Your task to perform on an android device: turn off priority inbox in the gmail app Image 0: 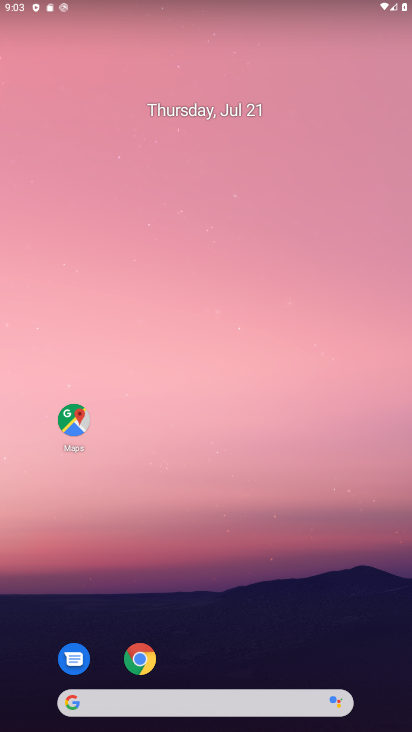
Step 0: drag from (206, 668) to (113, 362)
Your task to perform on an android device: turn off priority inbox in the gmail app Image 1: 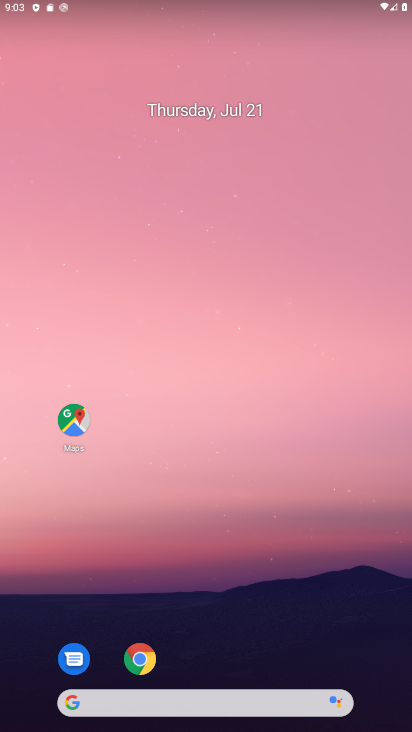
Step 1: drag from (241, 663) to (362, 515)
Your task to perform on an android device: turn off priority inbox in the gmail app Image 2: 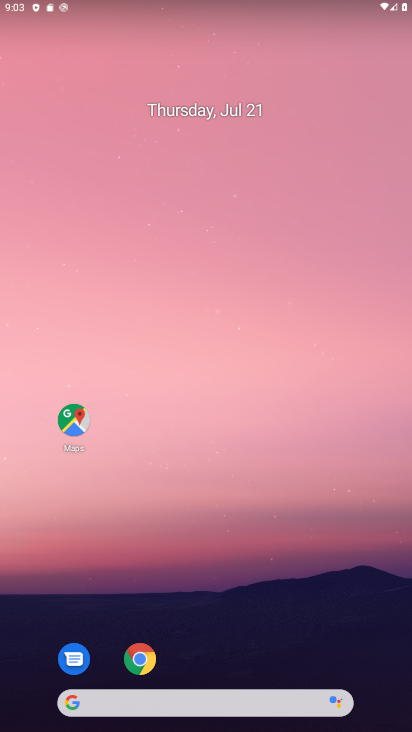
Step 2: drag from (212, 685) to (129, 34)
Your task to perform on an android device: turn off priority inbox in the gmail app Image 3: 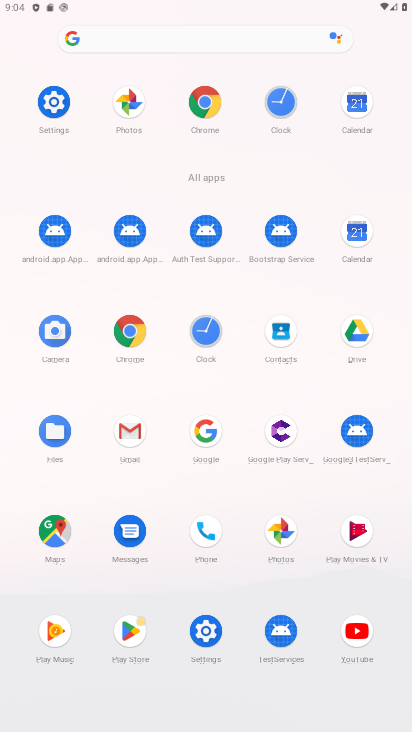
Step 3: click (132, 425)
Your task to perform on an android device: turn off priority inbox in the gmail app Image 4: 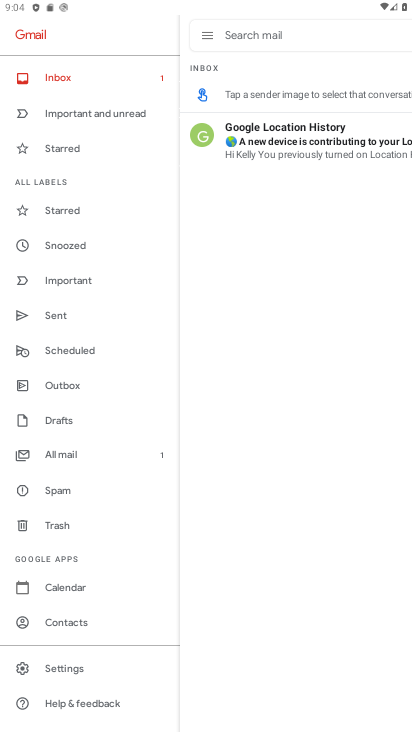
Step 4: click (95, 661)
Your task to perform on an android device: turn off priority inbox in the gmail app Image 5: 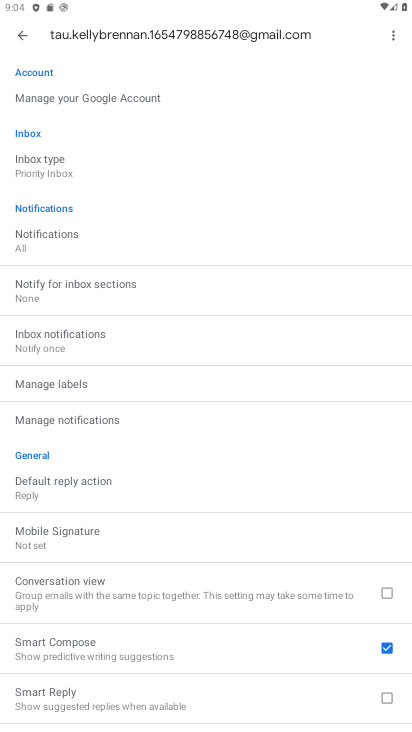
Step 5: click (31, 161)
Your task to perform on an android device: turn off priority inbox in the gmail app Image 6: 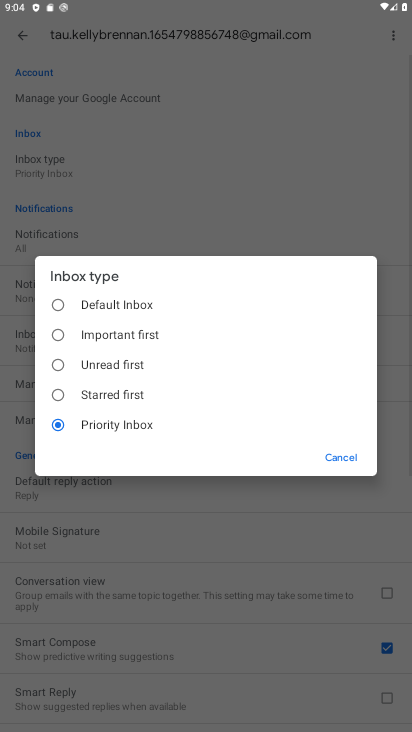
Step 6: click (130, 313)
Your task to perform on an android device: turn off priority inbox in the gmail app Image 7: 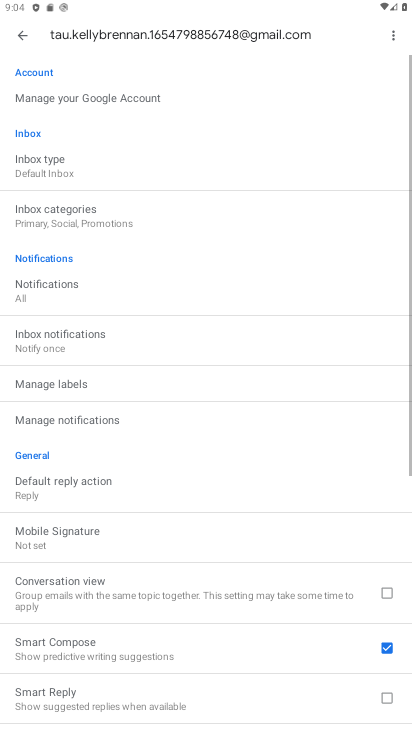
Step 7: task complete